Your task to perform on an android device: What's the weather today? Image 0: 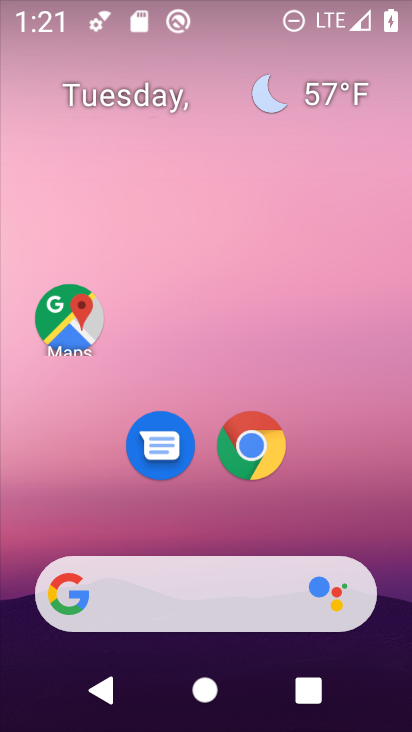
Step 0: click (196, 606)
Your task to perform on an android device: What's the weather today? Image 1: 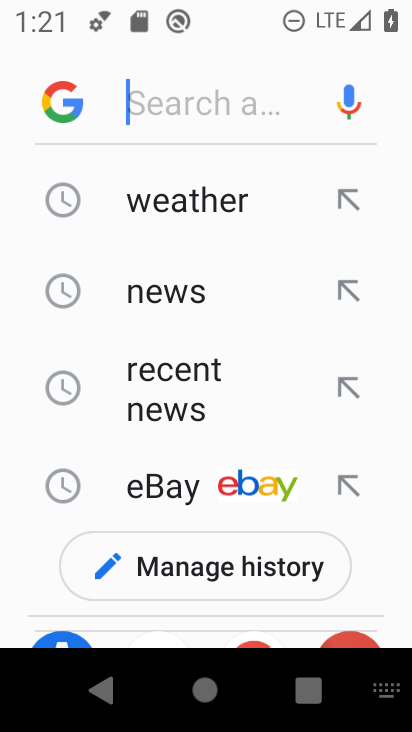
Step 1: click (215, 203)
Your task to perform on an android device: What's the weather today? Image 2: 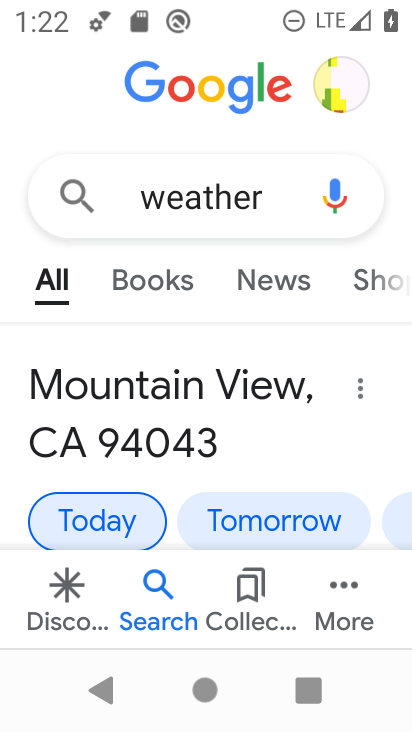
Step 2: task complete